Your task to perform on an android device: change alarm snooze length Image 0: 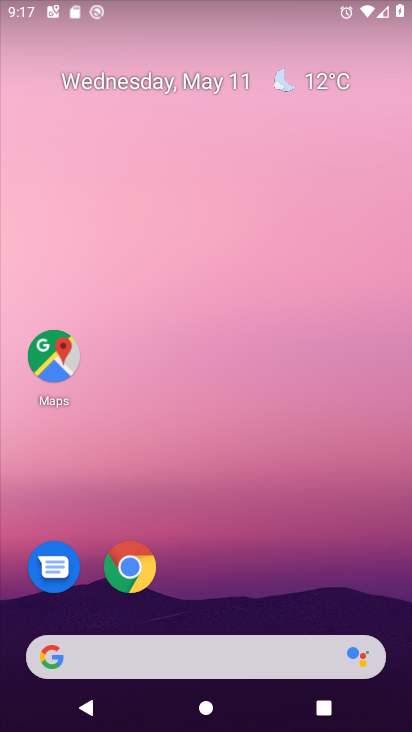
Step 0: drag from (287, 525) to (266, 76)
Your task to perform on an android device: change alarm snooze length Image 1: 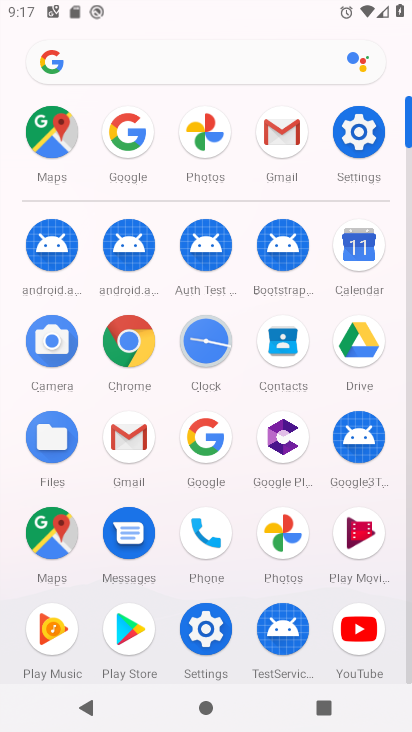
Step 1: click (219, 337)
Your task to perform on an android device: change alarm snooze length Image 2: 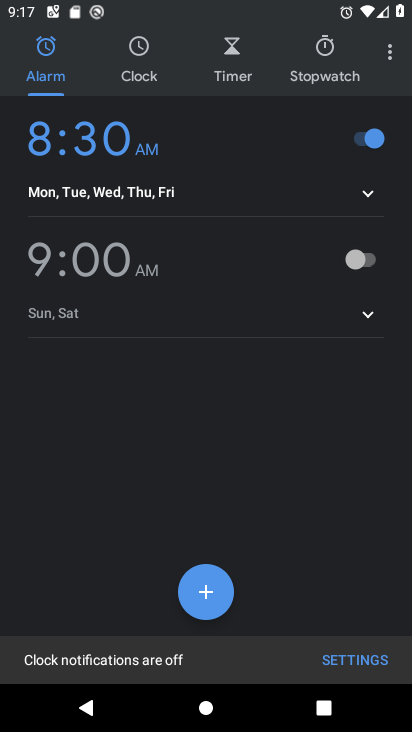
Step 2: click (384, 54)
Your task to perform on an android device: change alarm snooze length Image 3: 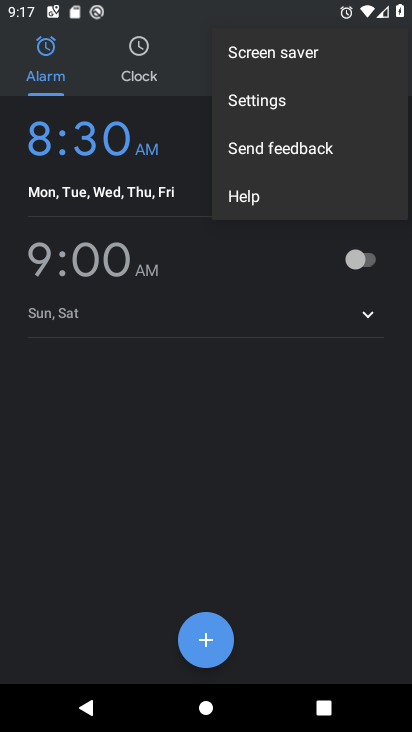
Step 3: click (256, 104)
Your task to perform on an android device: change alarm snooze length Image 4: 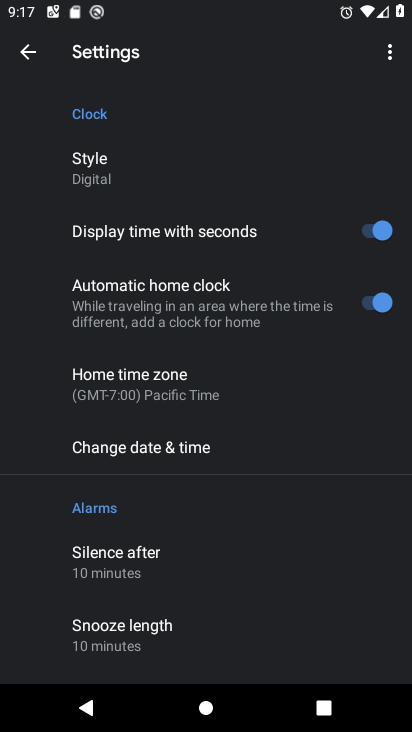
Step 4: click (167, 632)
Your task to perform on an android device: change alarm snooze length Image 5: 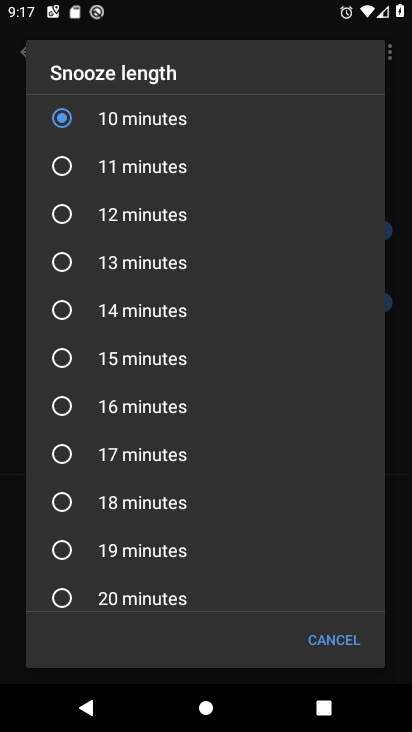
Step 5: click (152, 161)
Your task to perform on an android device: change alarm snooze length Image 6: 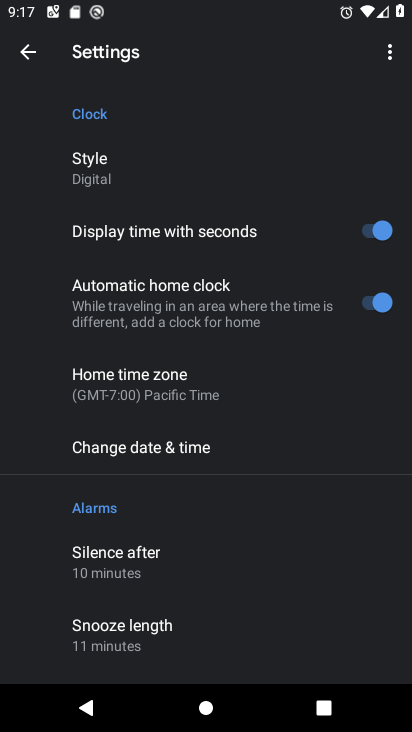
Step 6: task complete